Your task to perform on an android device: Go to Maps Image 0: 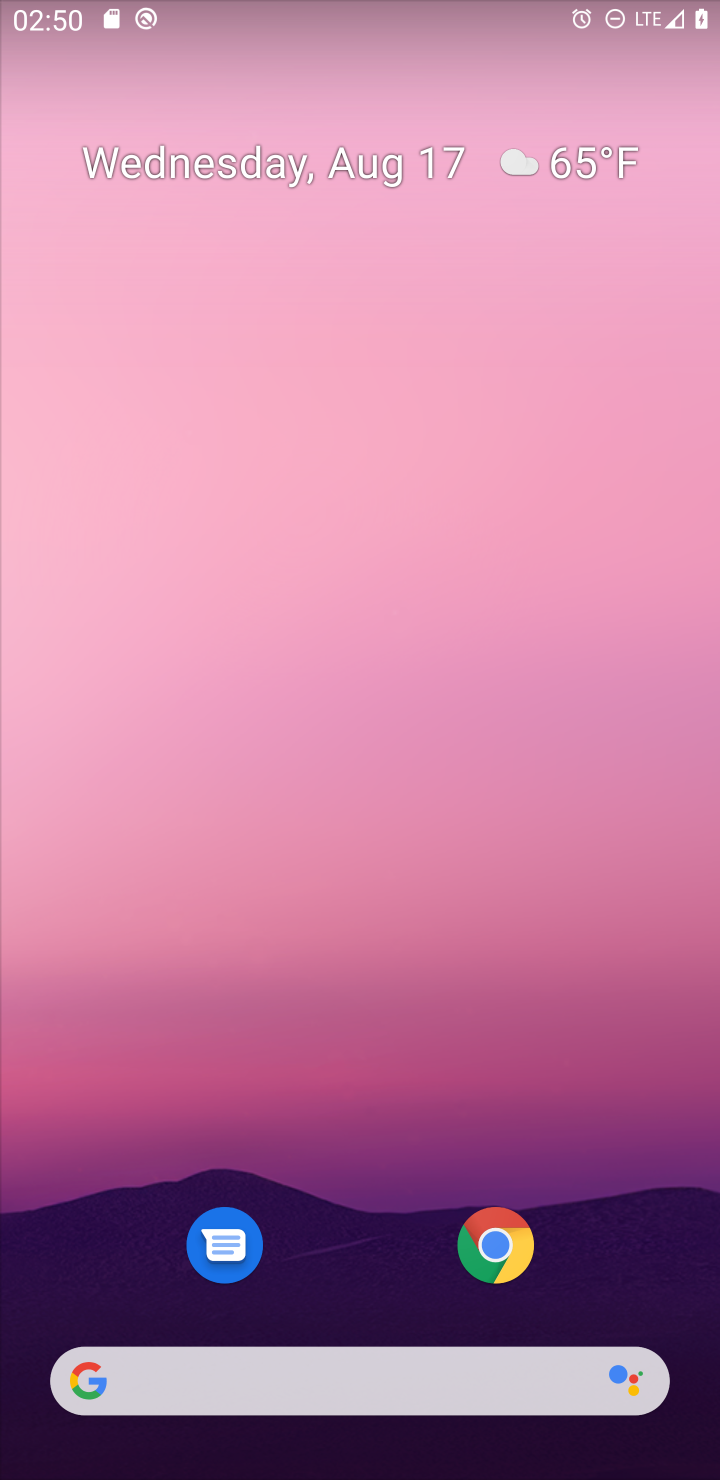
Step 0: drag from (353, 1137) to (306, 121)
Your task to perform on an android device: Go to Maps Image 1: 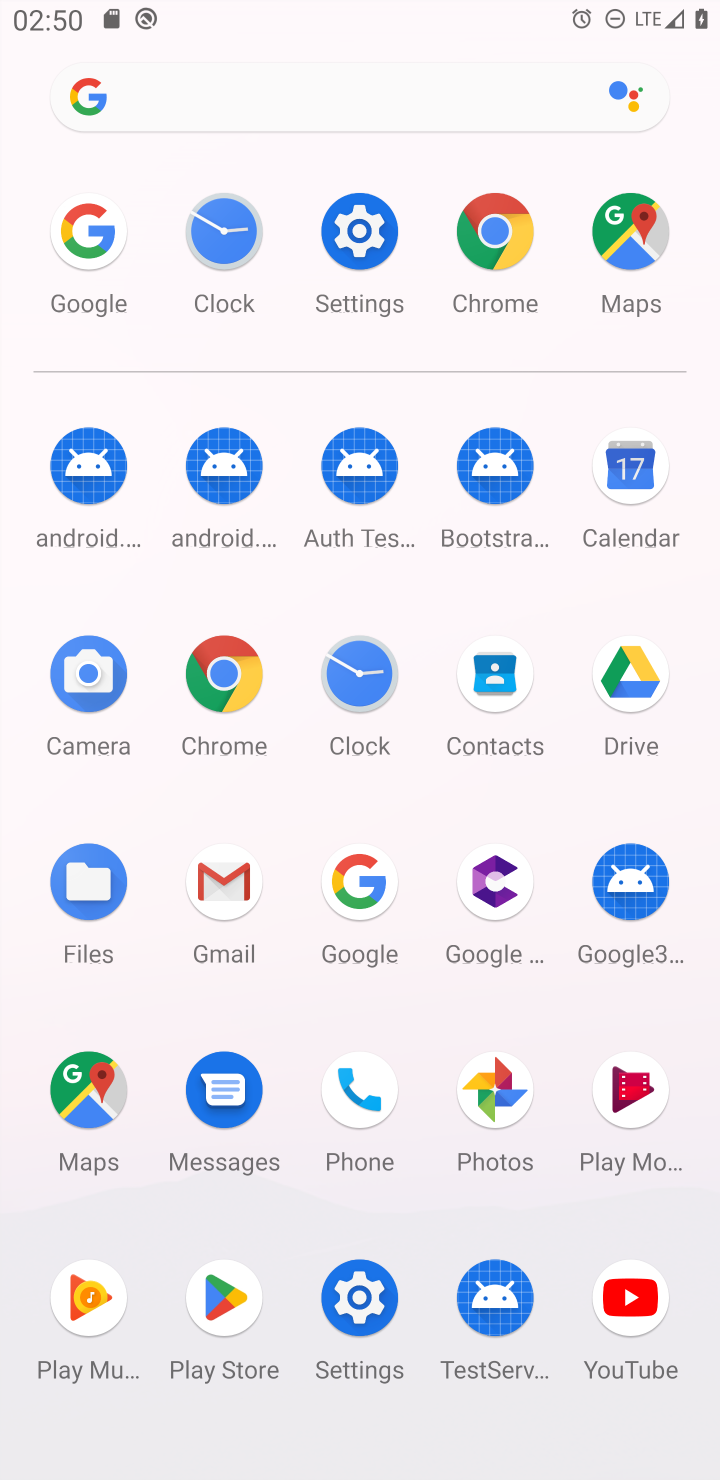
Step 1: click (92, 1086)
Your task to perform on an android device: Go to Maps Image 2: 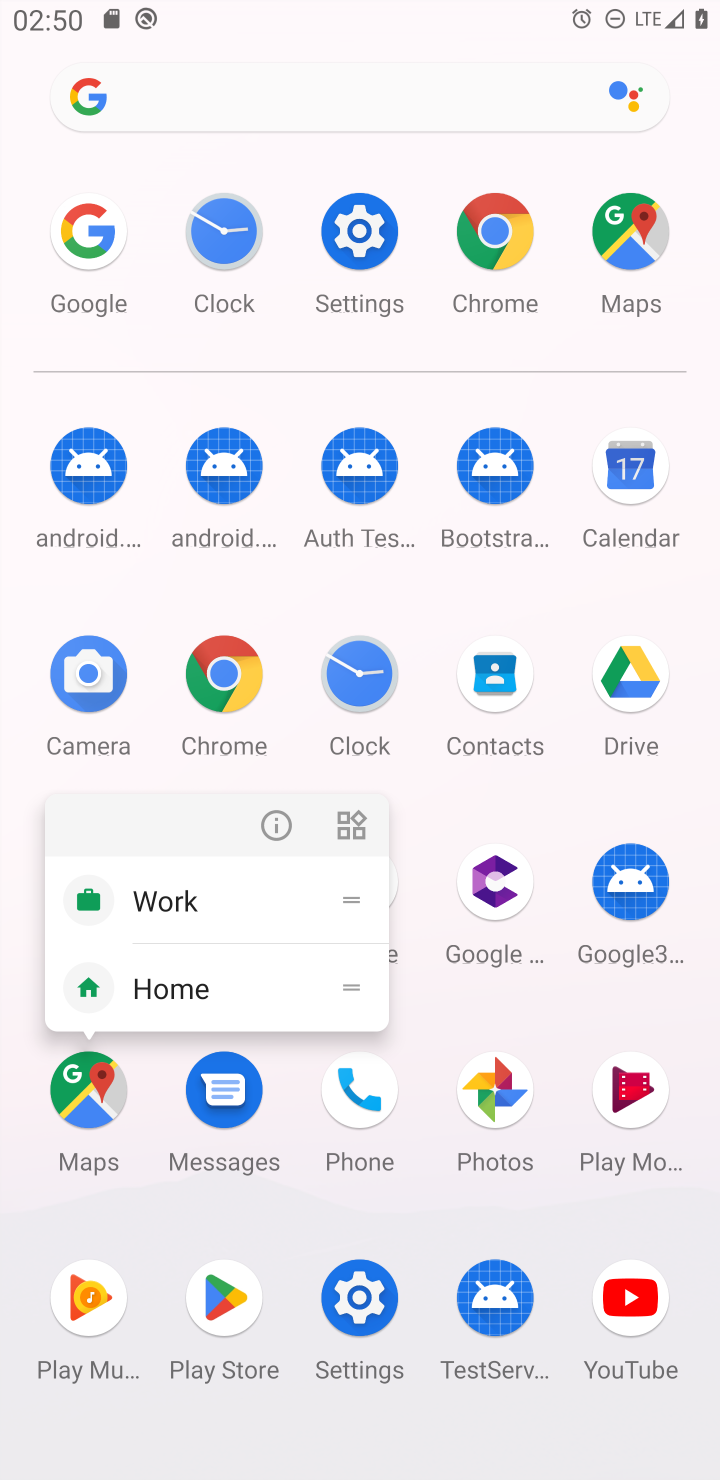
Step 2: click (88, 1086)
Your task to perform on an android device: Go to Maps Image 3: 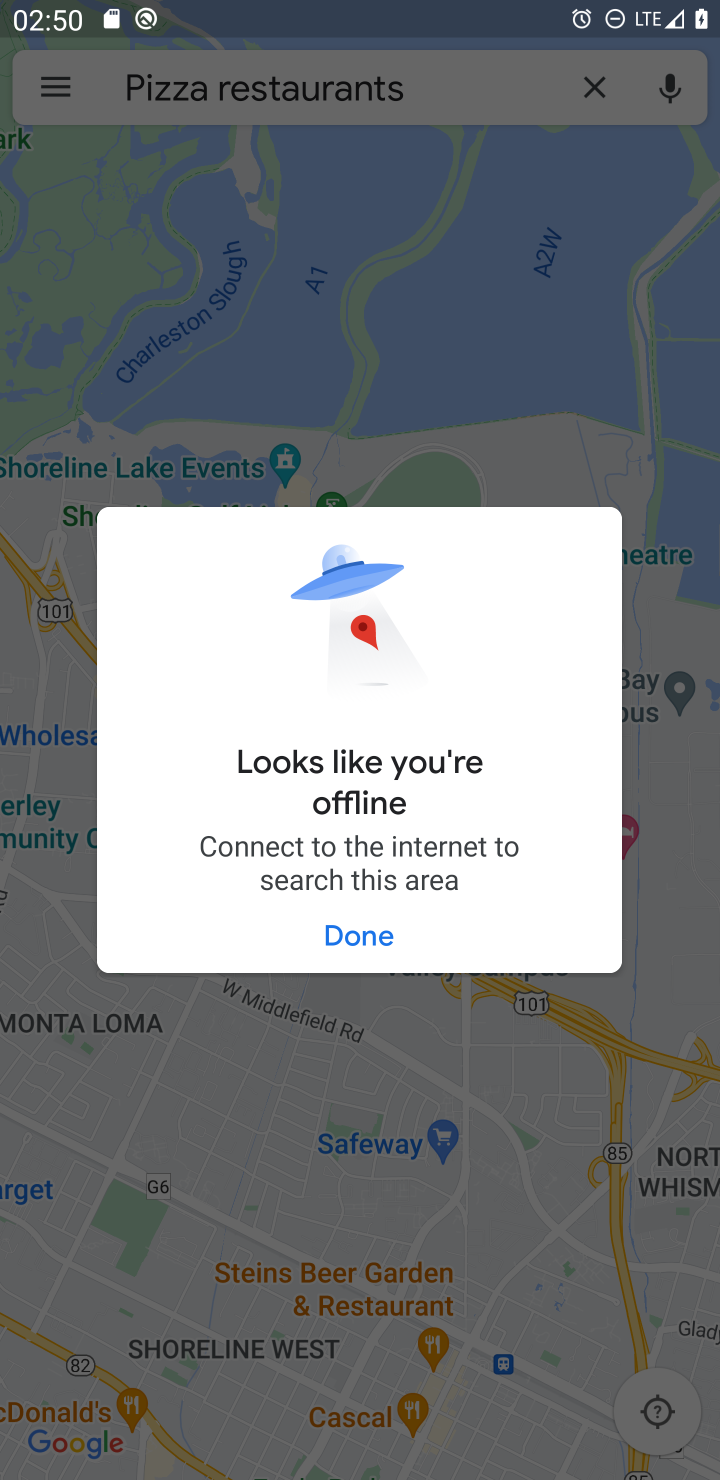
Step 3: click (357, 930)
Your task to perform on an android device: Go to Maps Image 4: 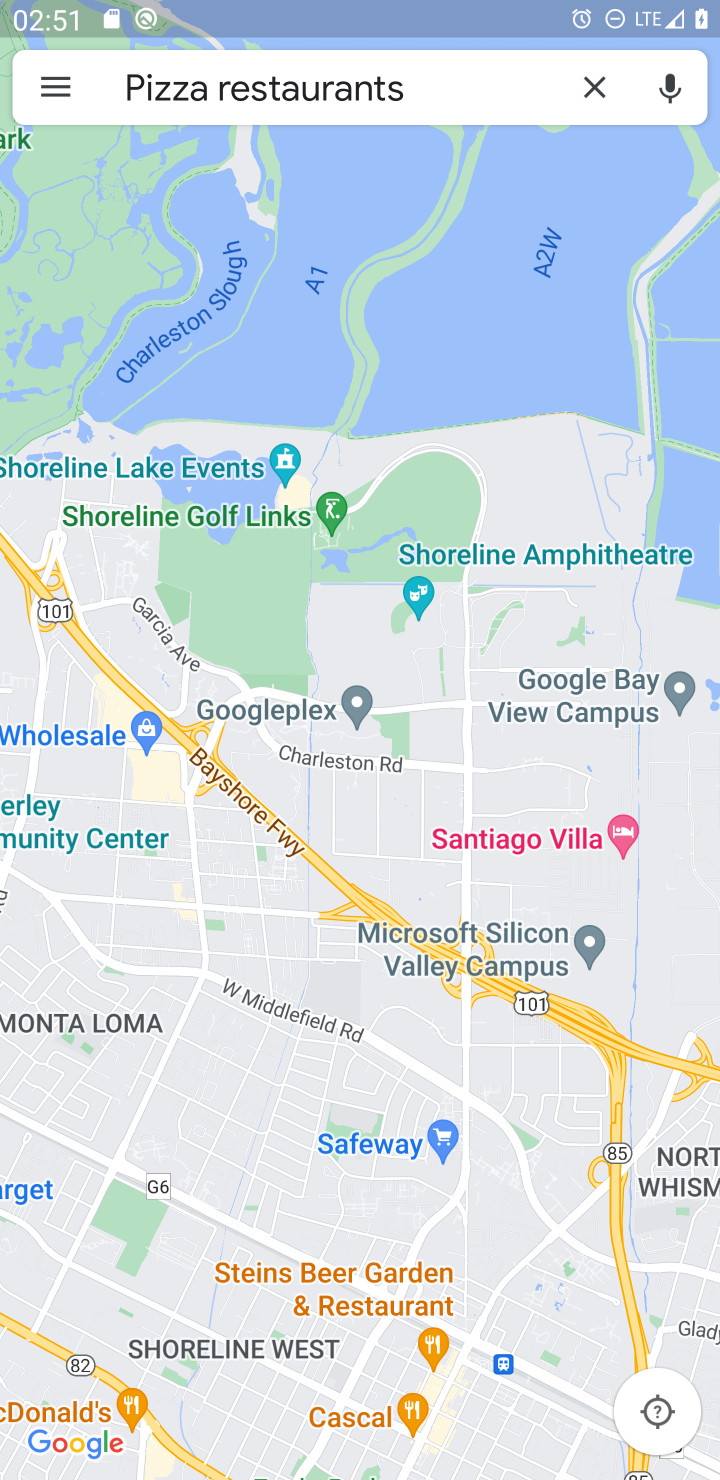
Step 4: task complete